Your task to perform on an android device: Open display settings Image 0: 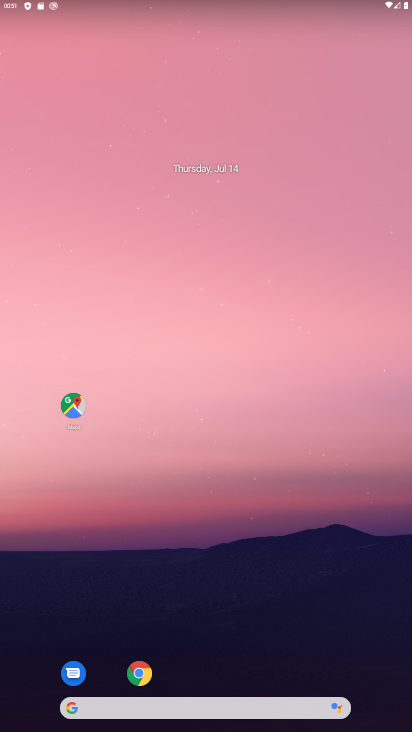
Step 0: drag from (281, 679) to (217, 74)
Your task to perform on an android device: Open display settings Image 1: 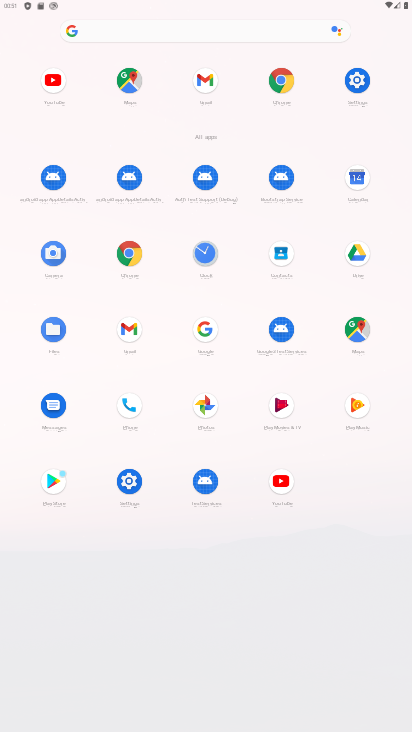
Step 1: click (349, 84)
Your task to perform on an android device: Open display settings Image 2: 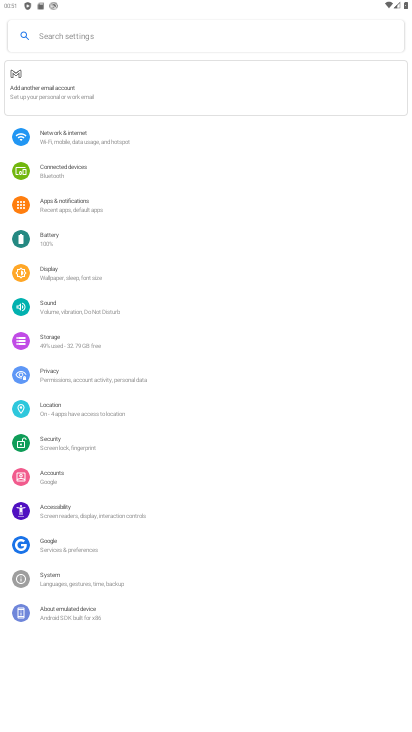
Step 2: click (68, 270)
Your task to perform on an android device: Open display settings Image 3: 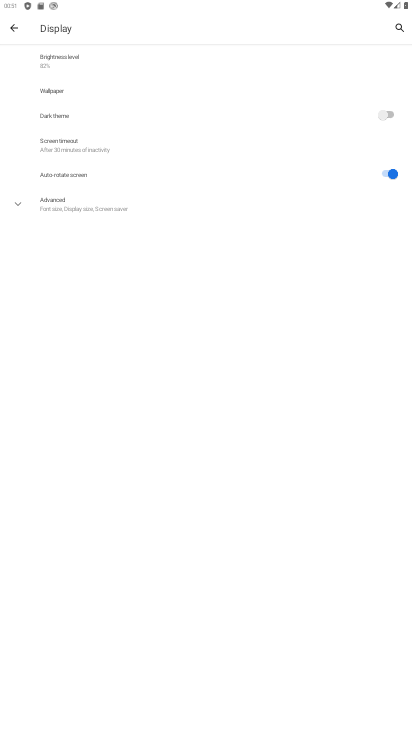
Step 3: task complete